Your task to perform on an android device: turn on bluetooth scan Image 0: 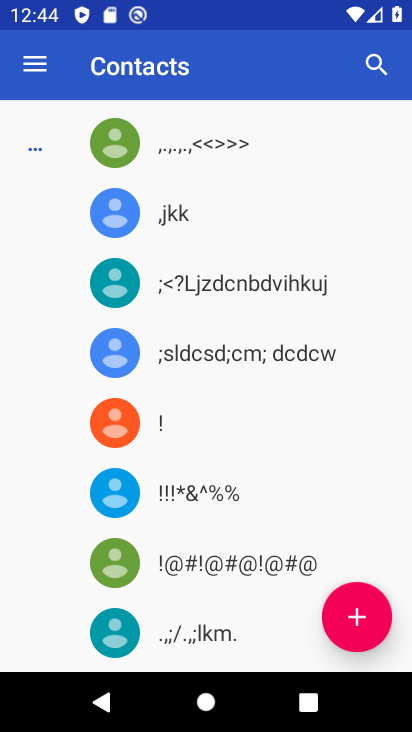
Step 0: press home button
Your task to perform on an android device: turn on bluetooth scan Image 1: 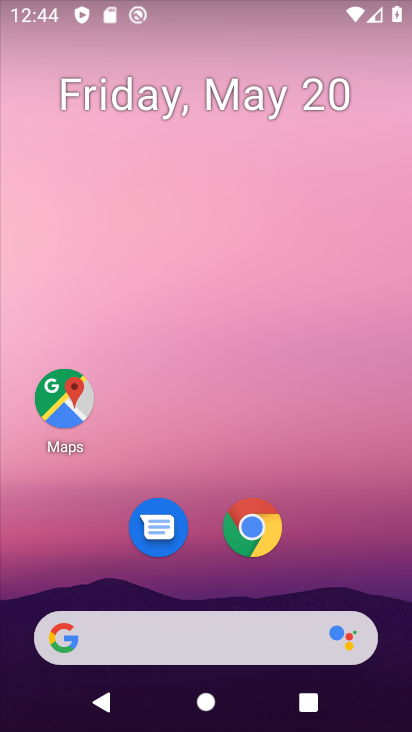
Step 1: drag from (206, 405) to (217, 70)
Your task to perform on an android device: turn on bluetooth scan Image 2: 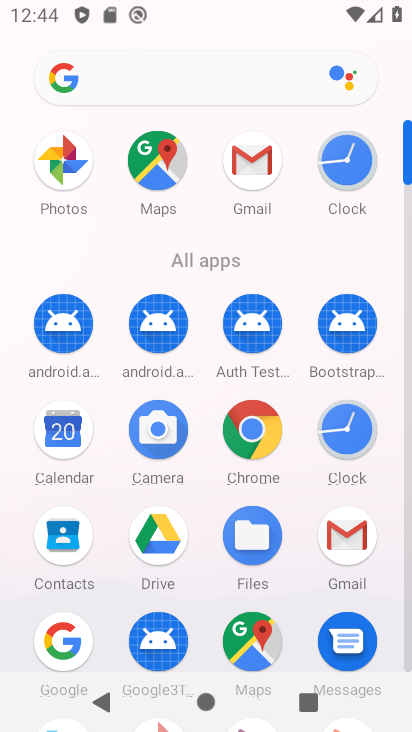
Step 2: drag from (205, 401) to (204, 123)
Your task to perform on an android device: turn on bluetooth scan Image 3: 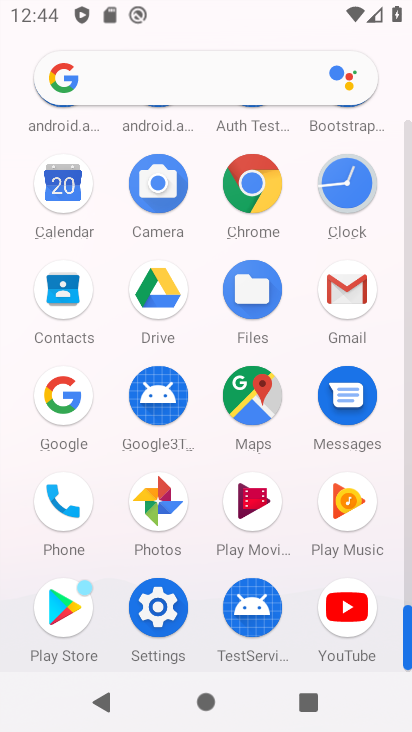
Step 3: click (156, 592)
Your task to perform on an android device: turn on bluetooth scan Image 4: 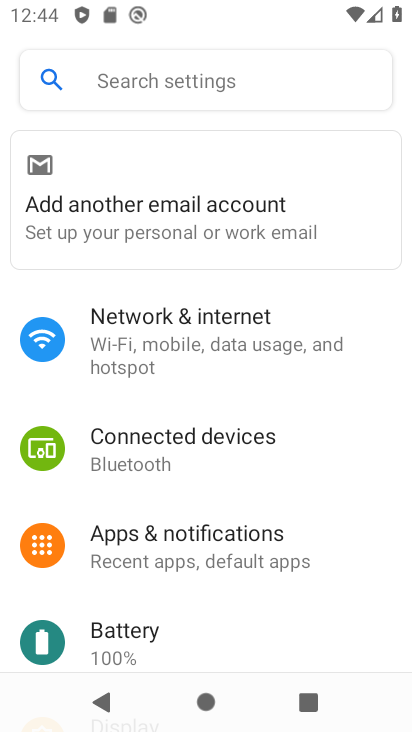
Step 4: drag from (232, 501) to (218, 72)
Your task to perform on an android device: turn on bluetooth scan Image 5: 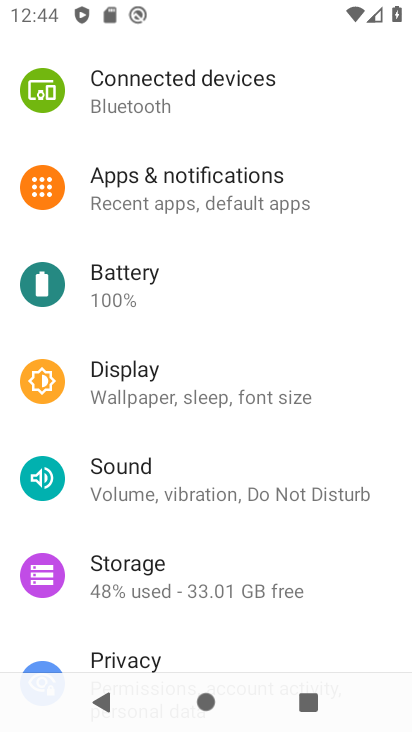
Step 5: drag from (235, 361) to (237, 125)
Your task to perform on an android device: turn on bluetooth scan Image 6: 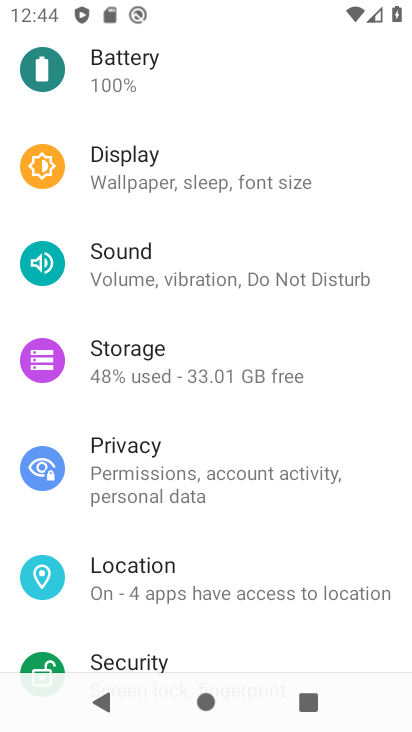
Step 6: click (232, 584)
Your task to perform on an android device: turn on bluetooth scan Image 7: 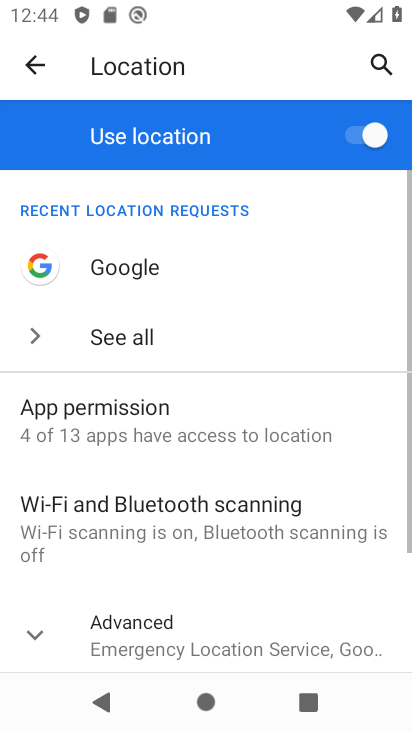
Step 7: click (289, 509)
Your task to perform on an android device: turn on bluetooth scan Image 8: 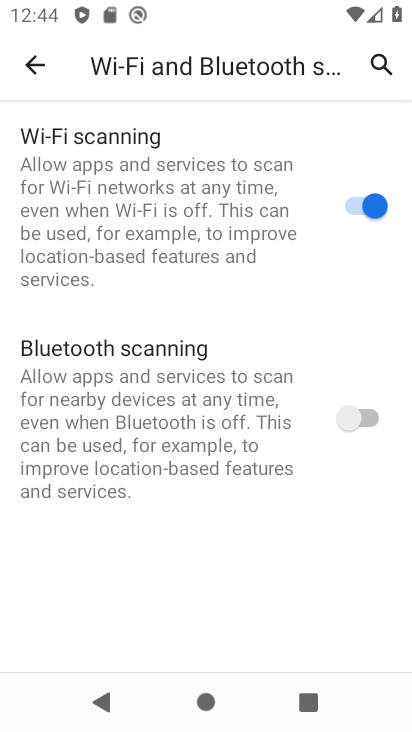
Step 8: click (367, 416)
Your task to perform on an android device: turn on bluetooth scan Image 9: 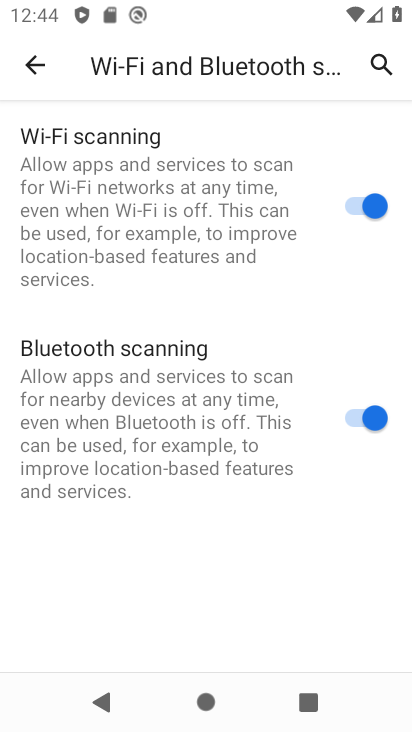
Step 9: task complete